Your task to perform on an android device: open a bookmark in the chrome app Image 0: 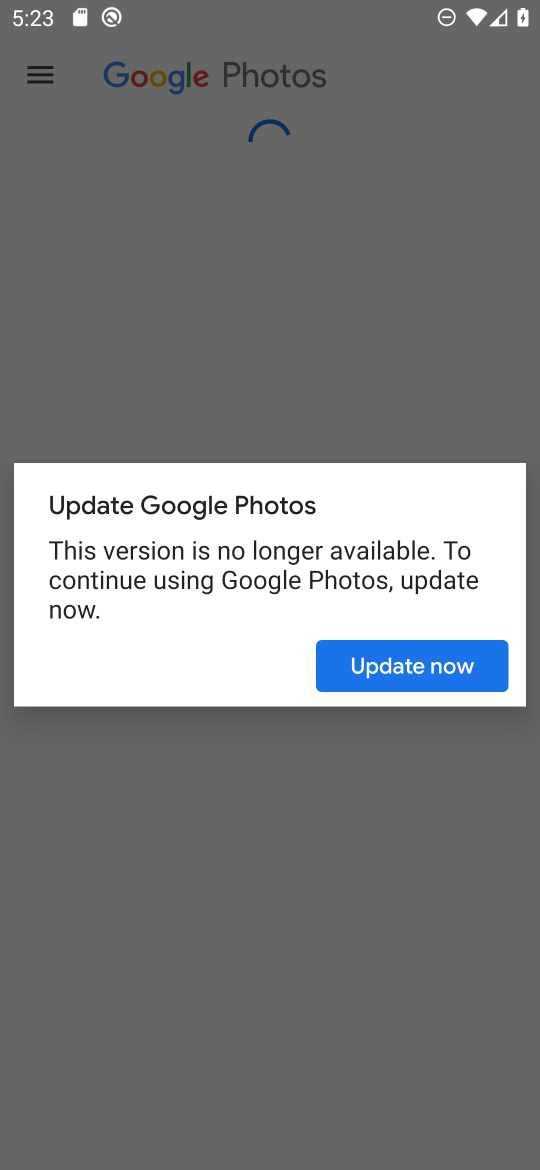
Step 0: press home button
Your task to perform on an android device: open a bookmark in the chrome app Image 1: 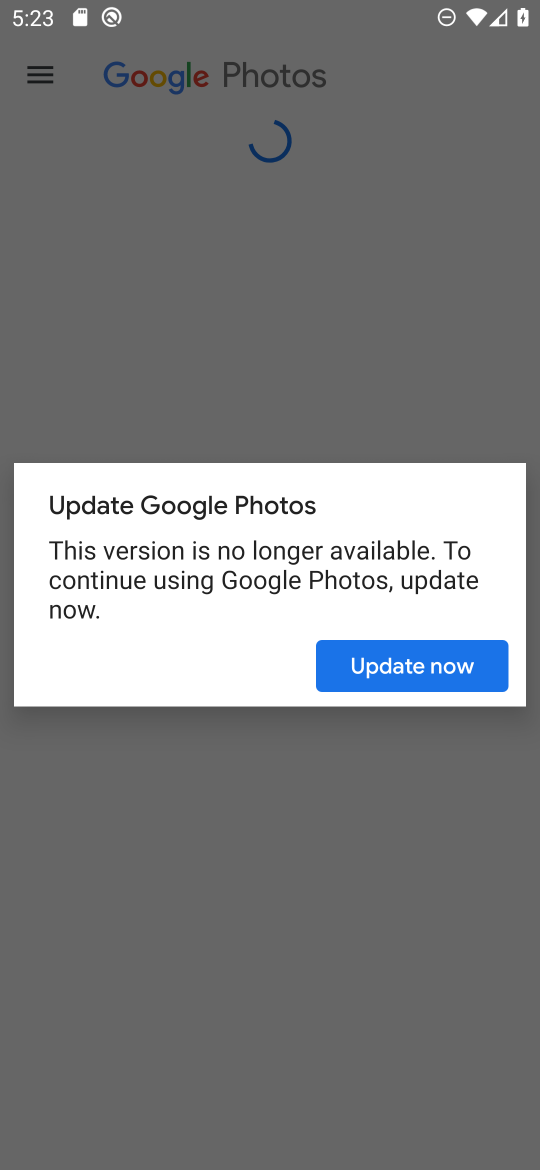
Step 1: press home button
Your task to perform on an android device: open a bookmark in the chrome app Image 2: 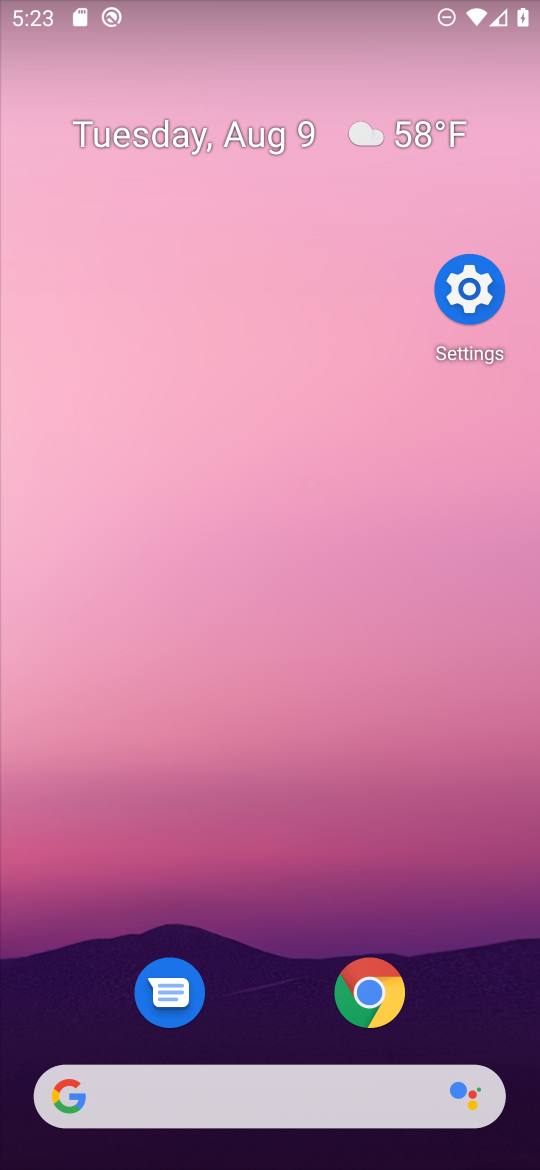
Step 2: drag from (256, 1116) to (309, 3)
Your task to perform on an android device: open a bookmark in the chrome app Image 3: 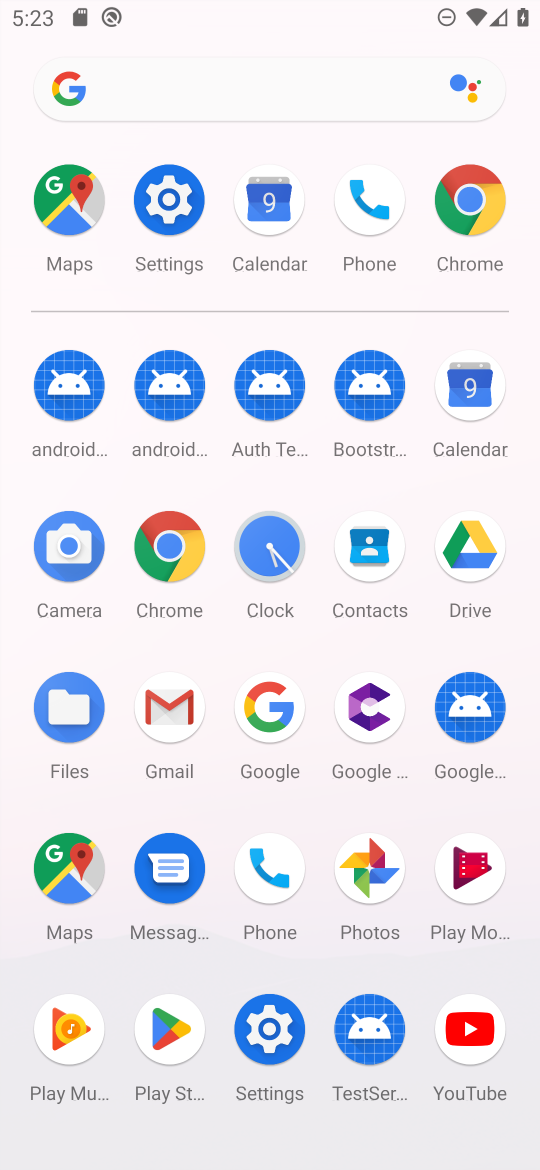
Step 3: click (144, 551)
Your task to perform on an android device: open a bookmark in the chrome app Image 4: 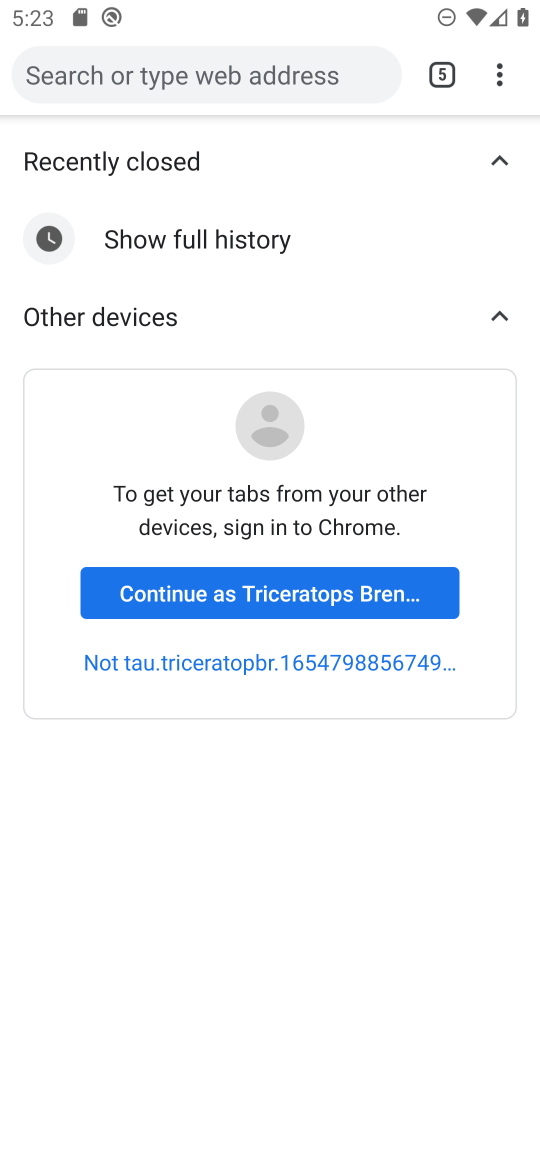
Step 4: click (203, 74)
Your task to perform on an android device: open a bookmark in the chrome app Image 5: 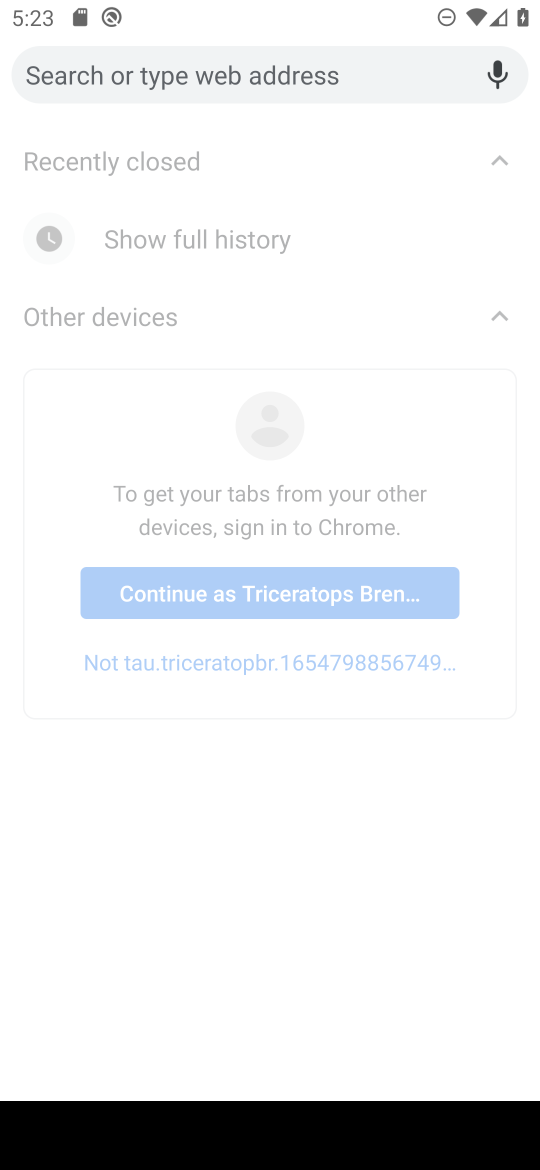
Step 5: press back button
Your task to perform on an android device: open a bookmark in the chrome app Image 6: 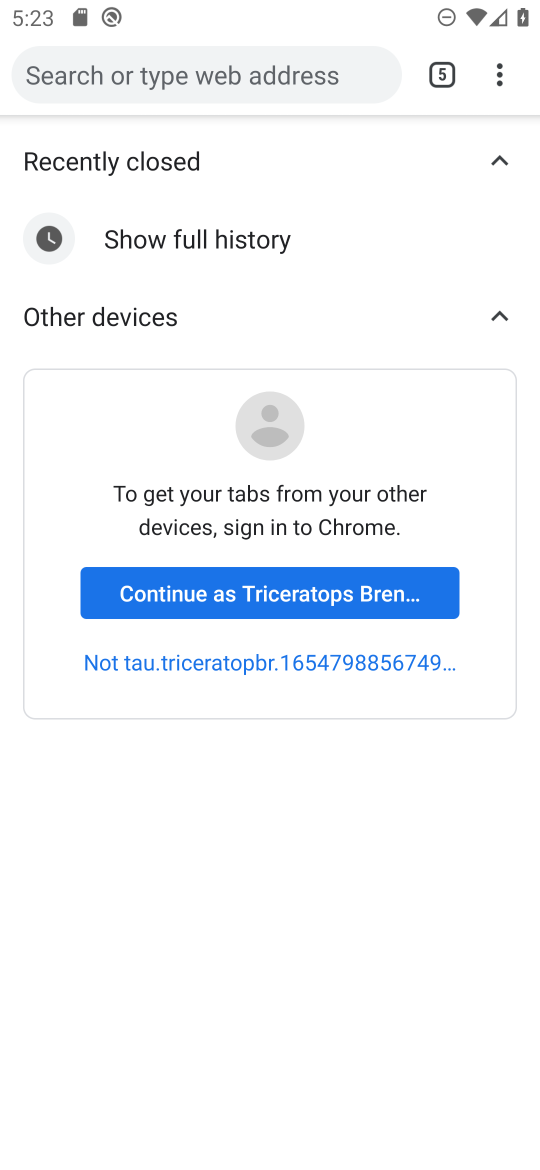
Step 6: click (499, 65)
Your task to perform on an android device: open a bookmark in the chrome app Image 7: 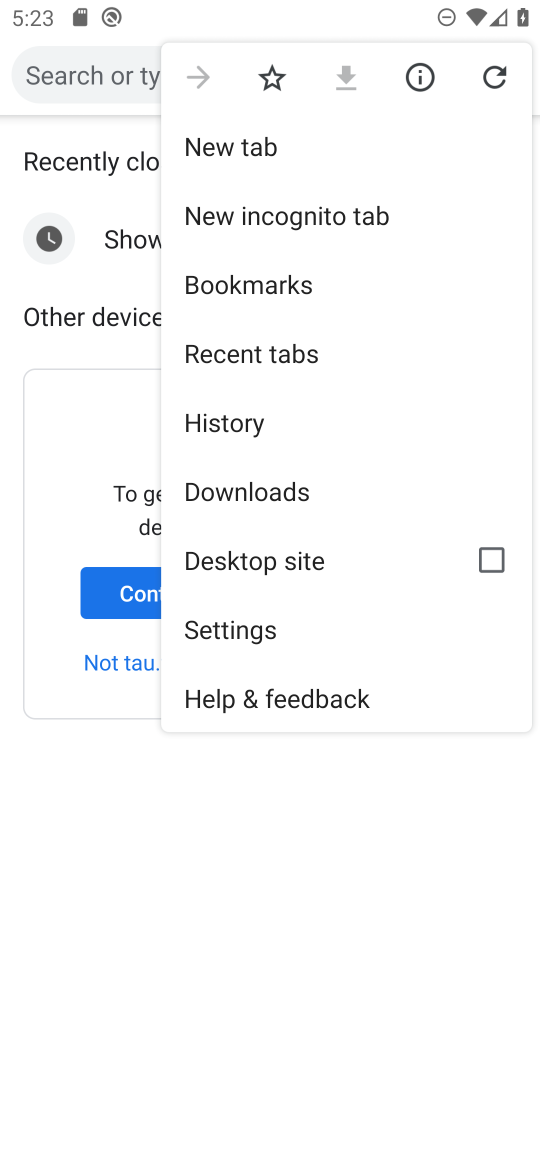
Step 7: click (274, 277)
Your task to perform on an android device: open a bookmark in the chrome app Image 8: 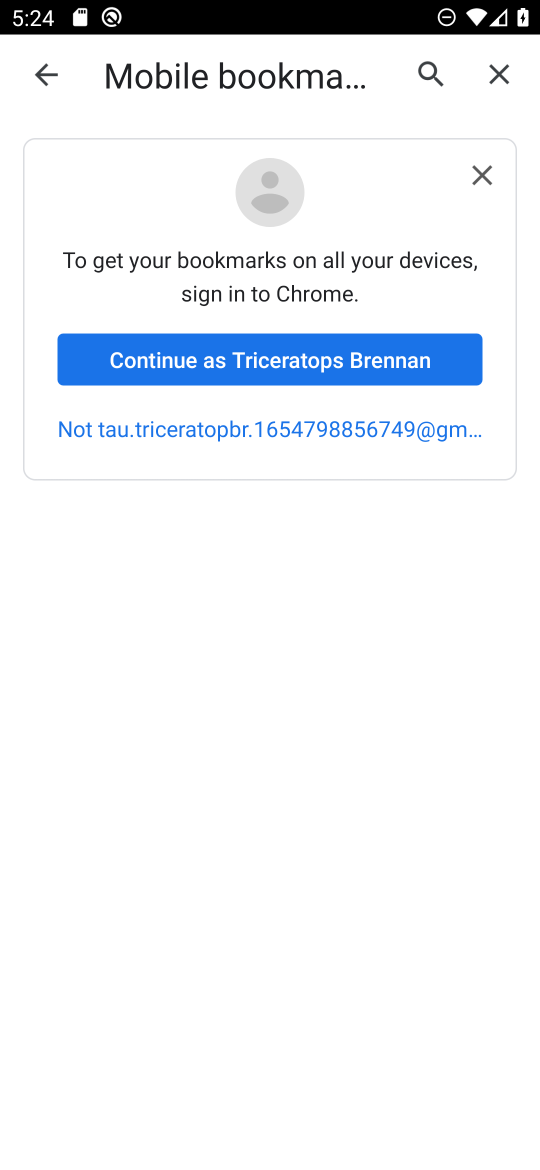
Step 8: task complete